Your task to perform on an android device: Open Reddit.com Image 0: 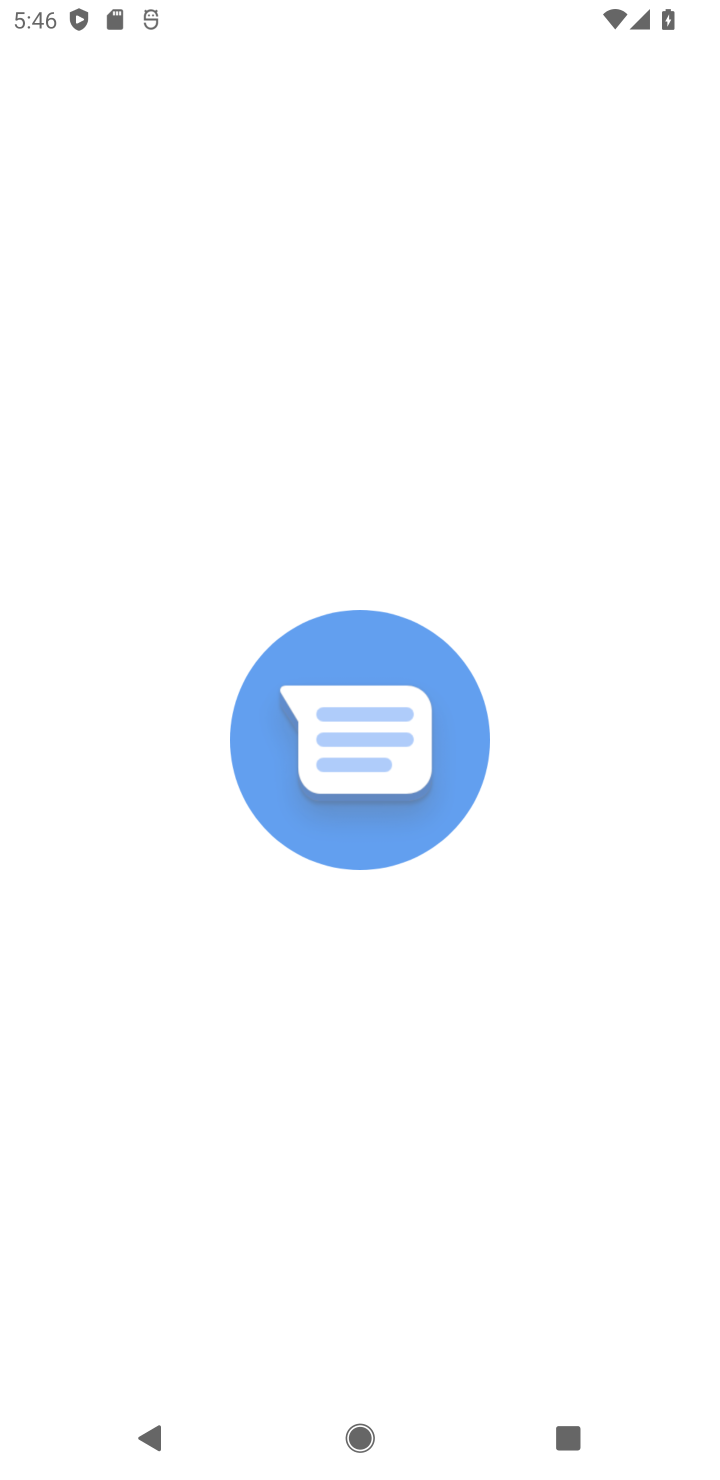
Step 0: press home button
Your task to perform on an android device: Open Reddit.com Image 1: 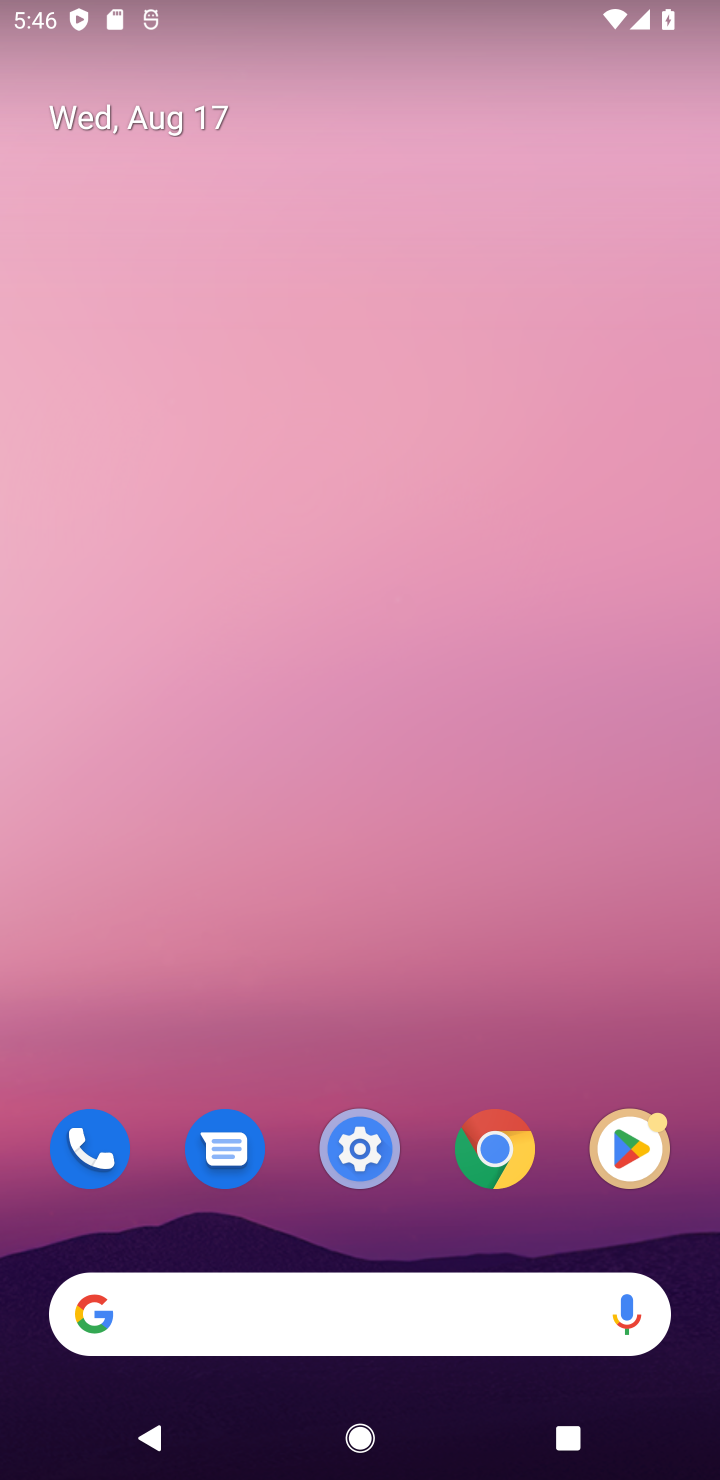
Step 1: click (501, 1155)
Your task to perform on an android device: Open Reddit.com Image 2: 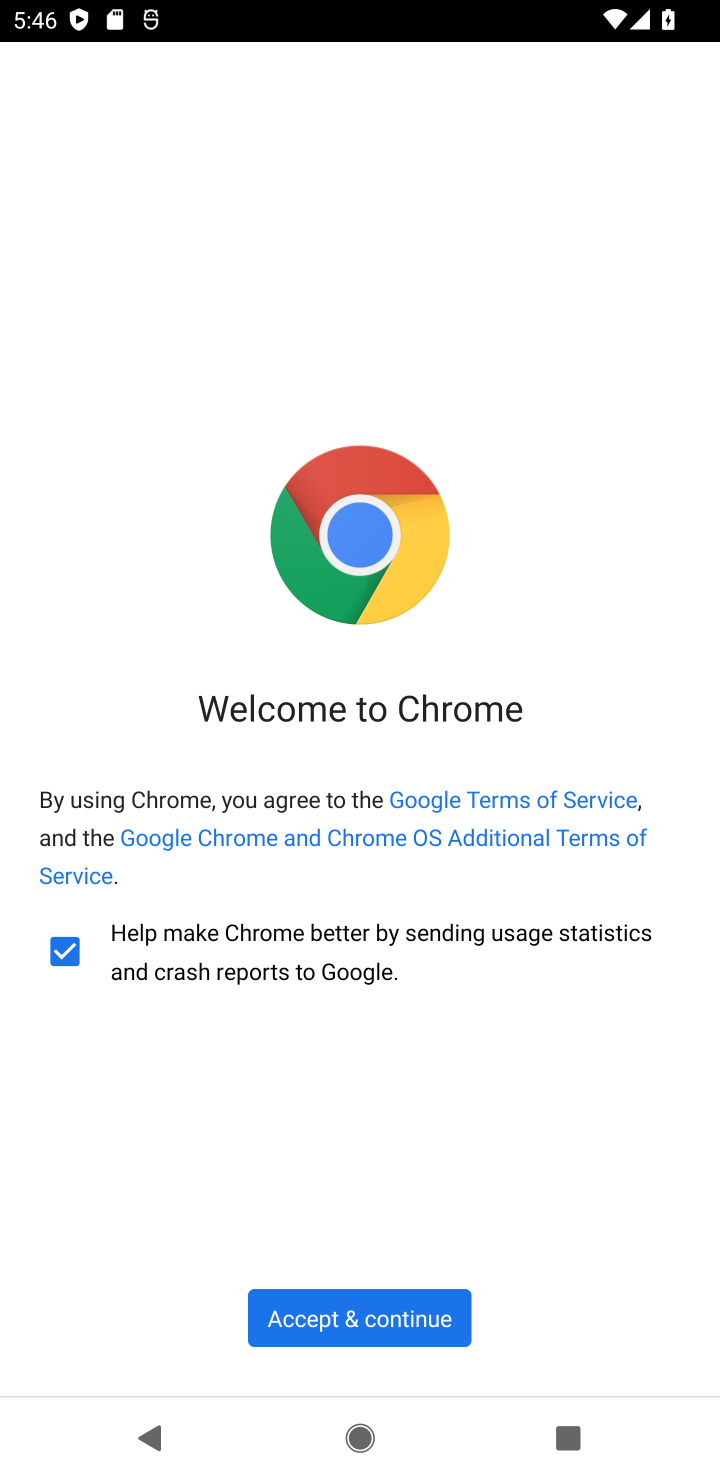
Step 2: click (414, 1321)
Your task to perform on an android device: Open Reddit.com Image 3: 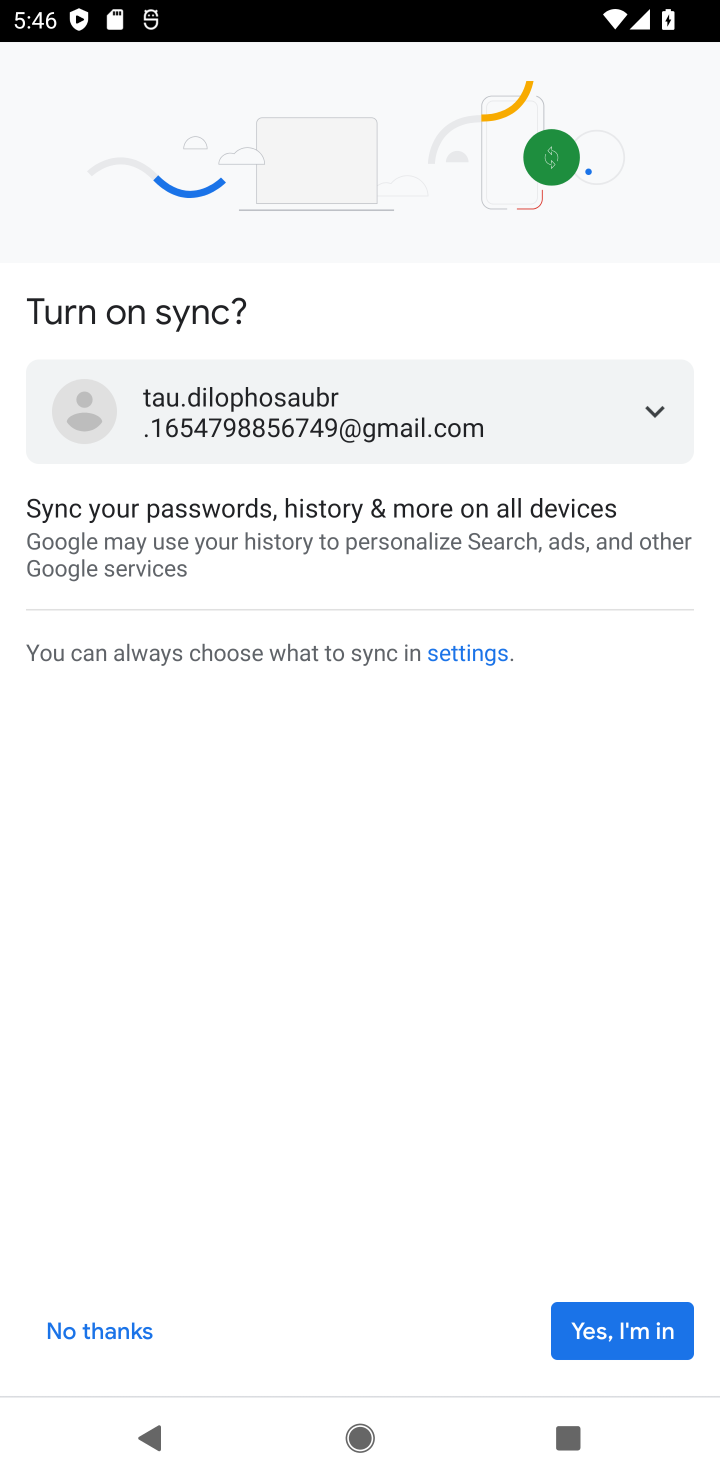
Step 3: click (641, 1355)
Your task to perform on an android device: Open Reddit.com Image 4: 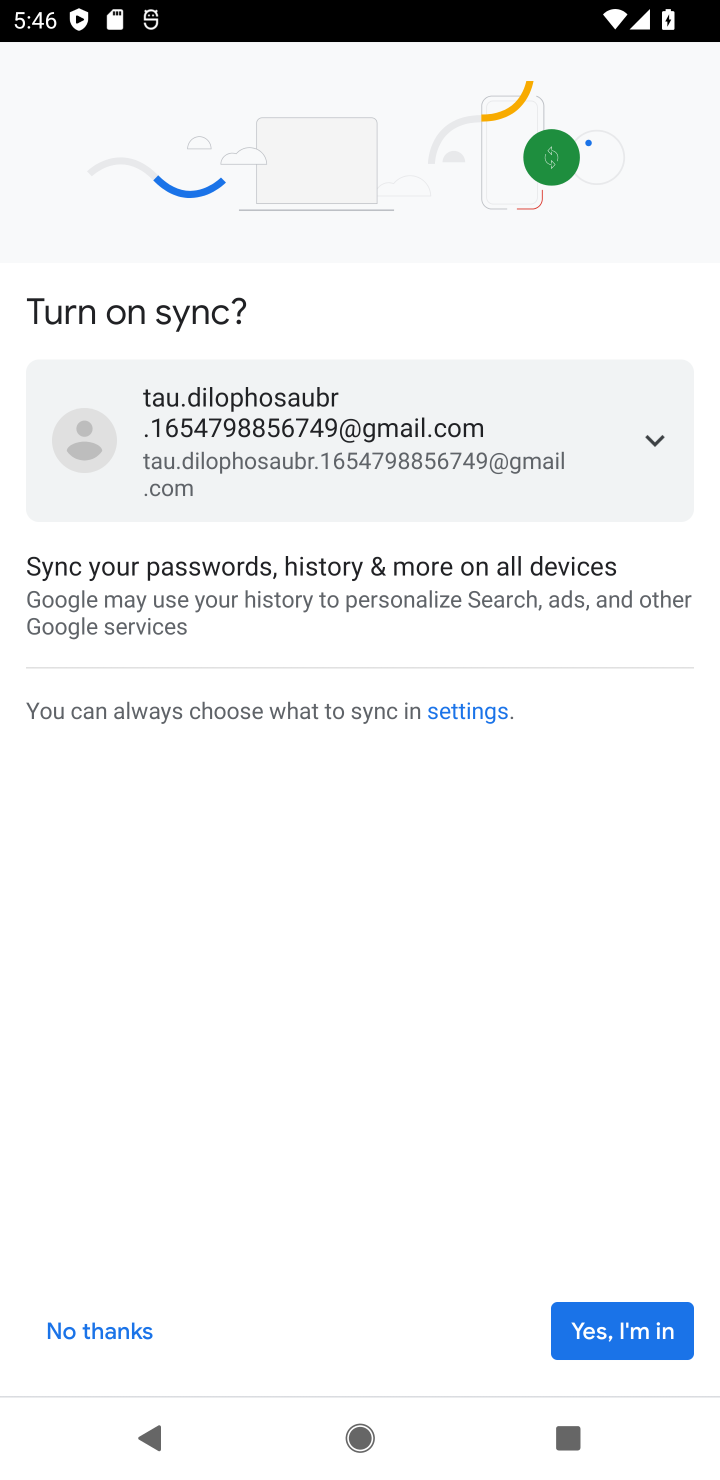
Step 4: click (593, 1344)
Your task to perform on an android device: Open Reddit.com Image 5: 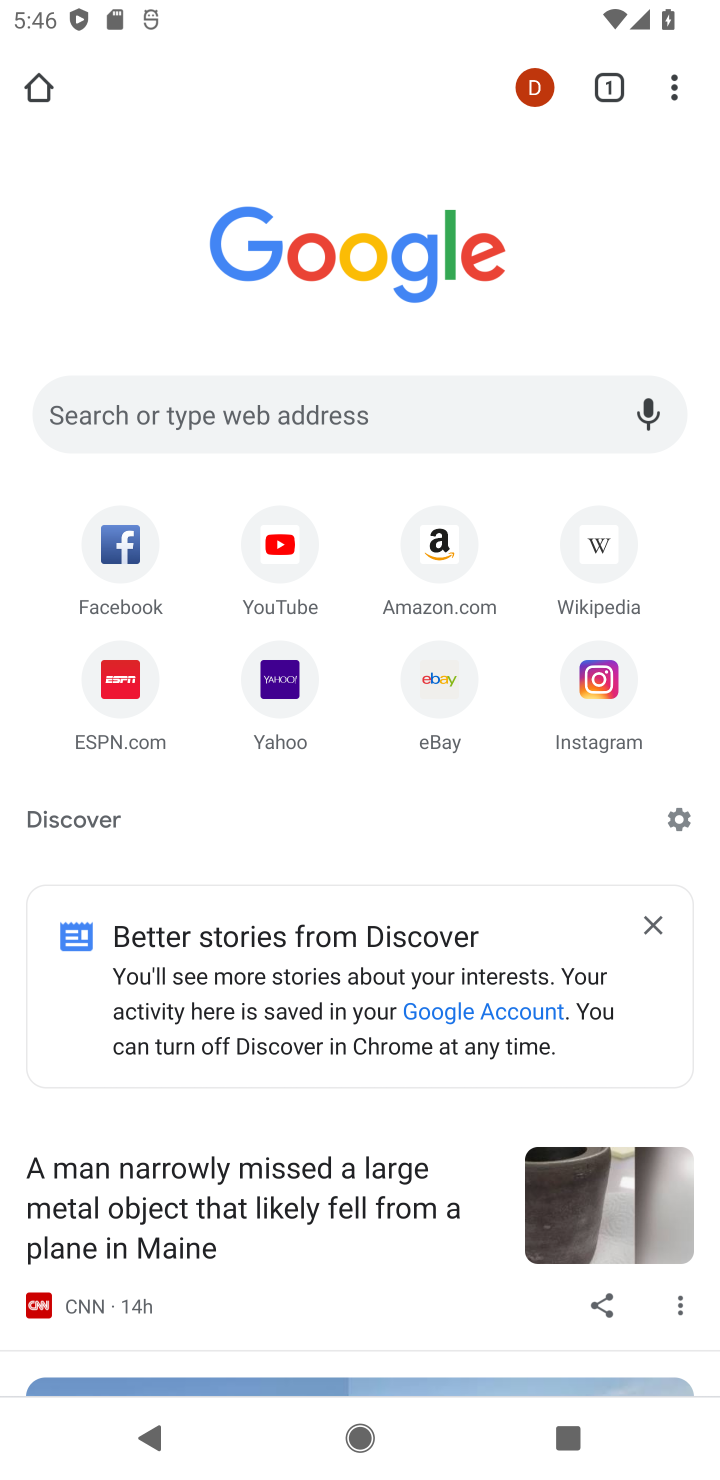
Step 5: click (301, 401)
Your task to perform on an android device: Open Reddit.com Image 6: 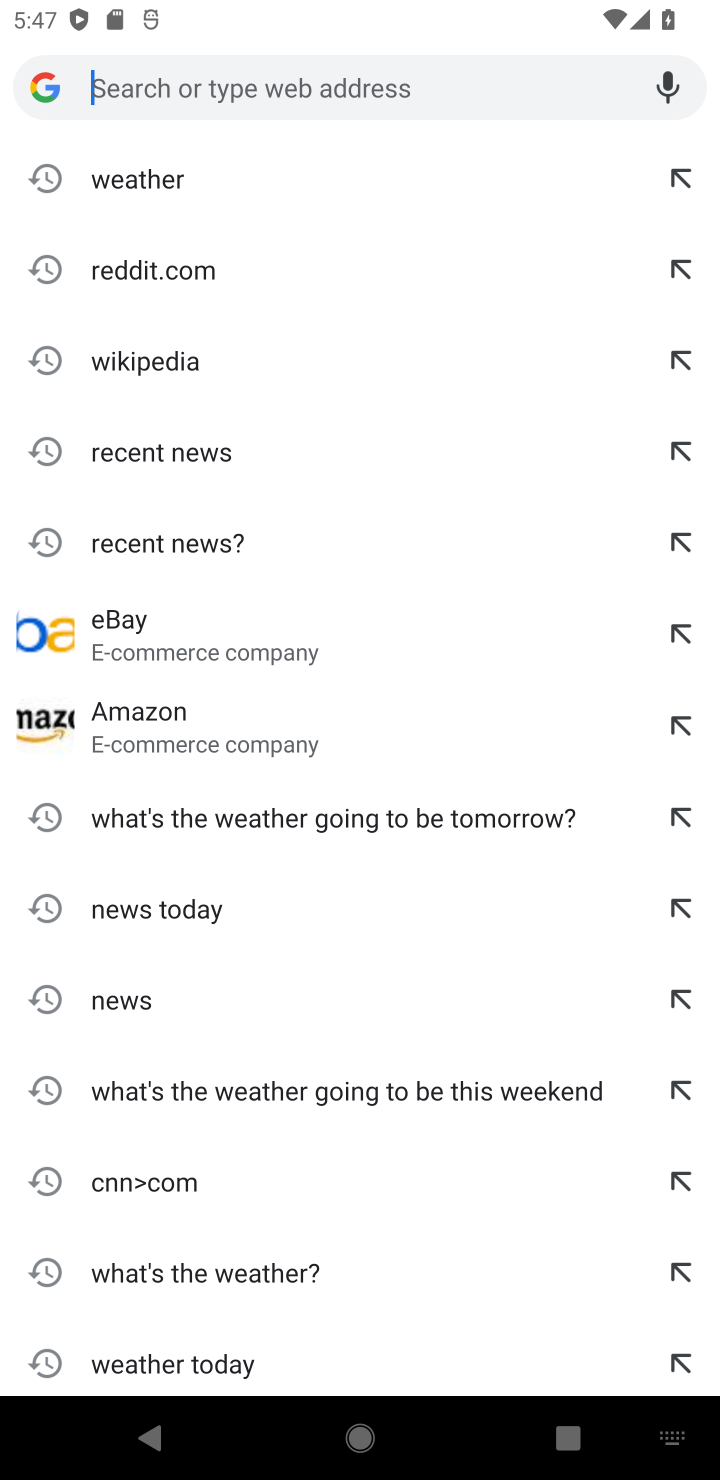
Step 6: type "reddit.com"
Your task to perform on an android device: Open Reddit.com Image 7: 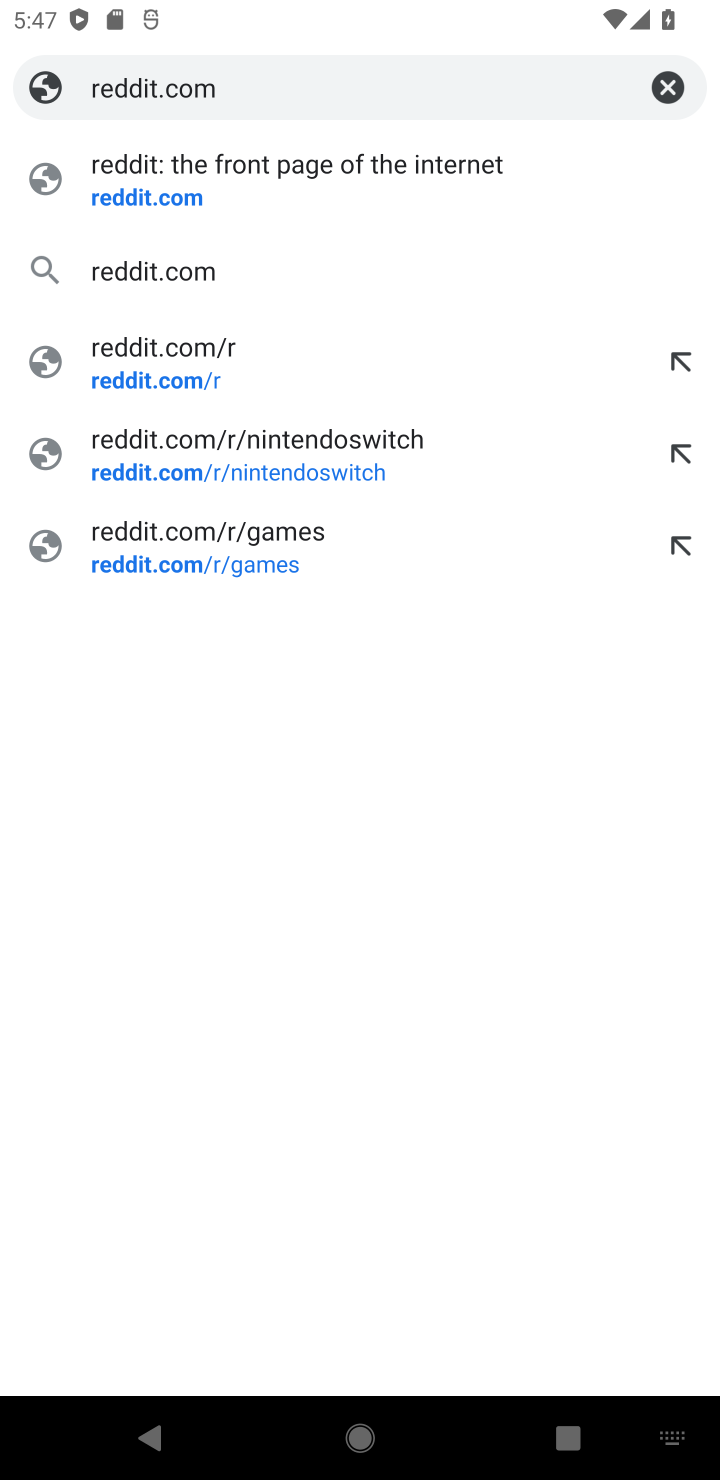
Step 7: click (115, 198)
Your task to perform on an android device: Open Reddit.com Image 8: 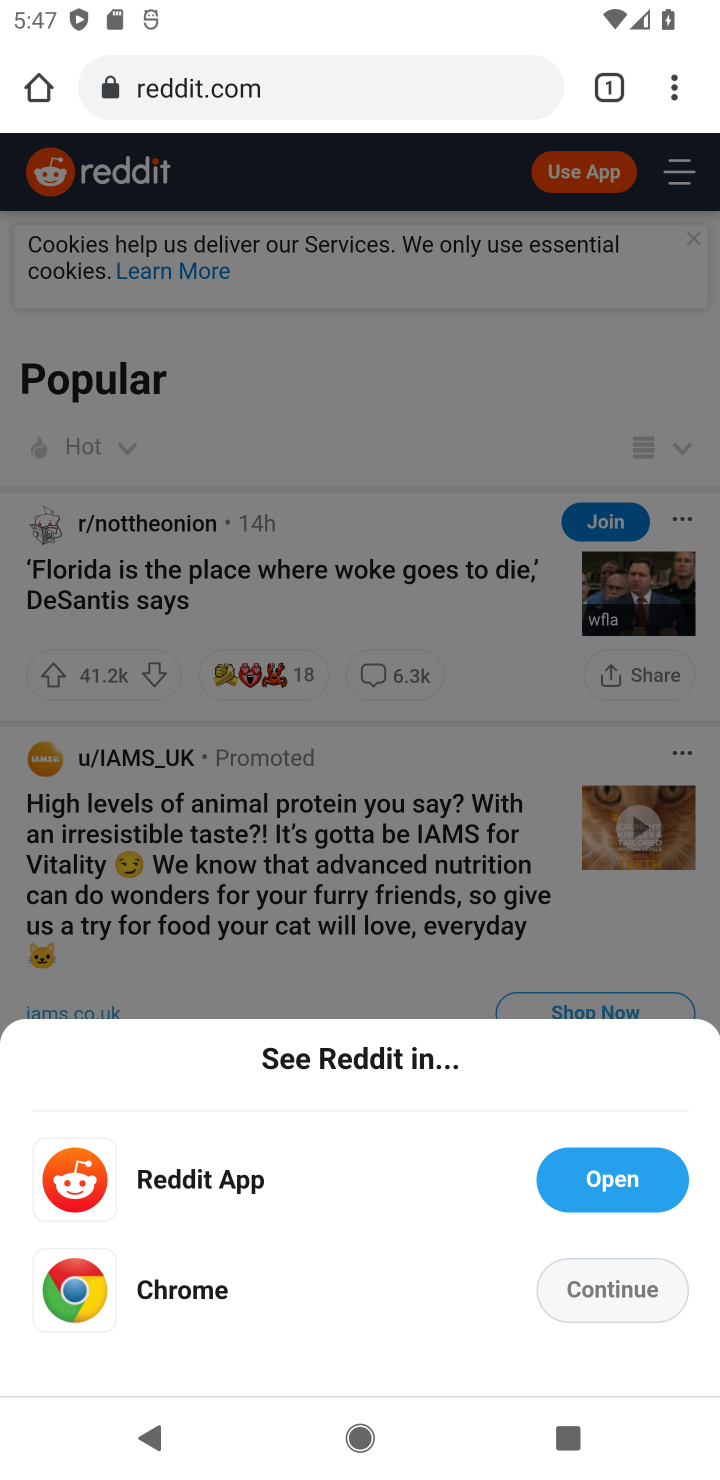
Step 8: click (615, 1291)
Your task to perform on an android device: Open Reddit.com Image 9: 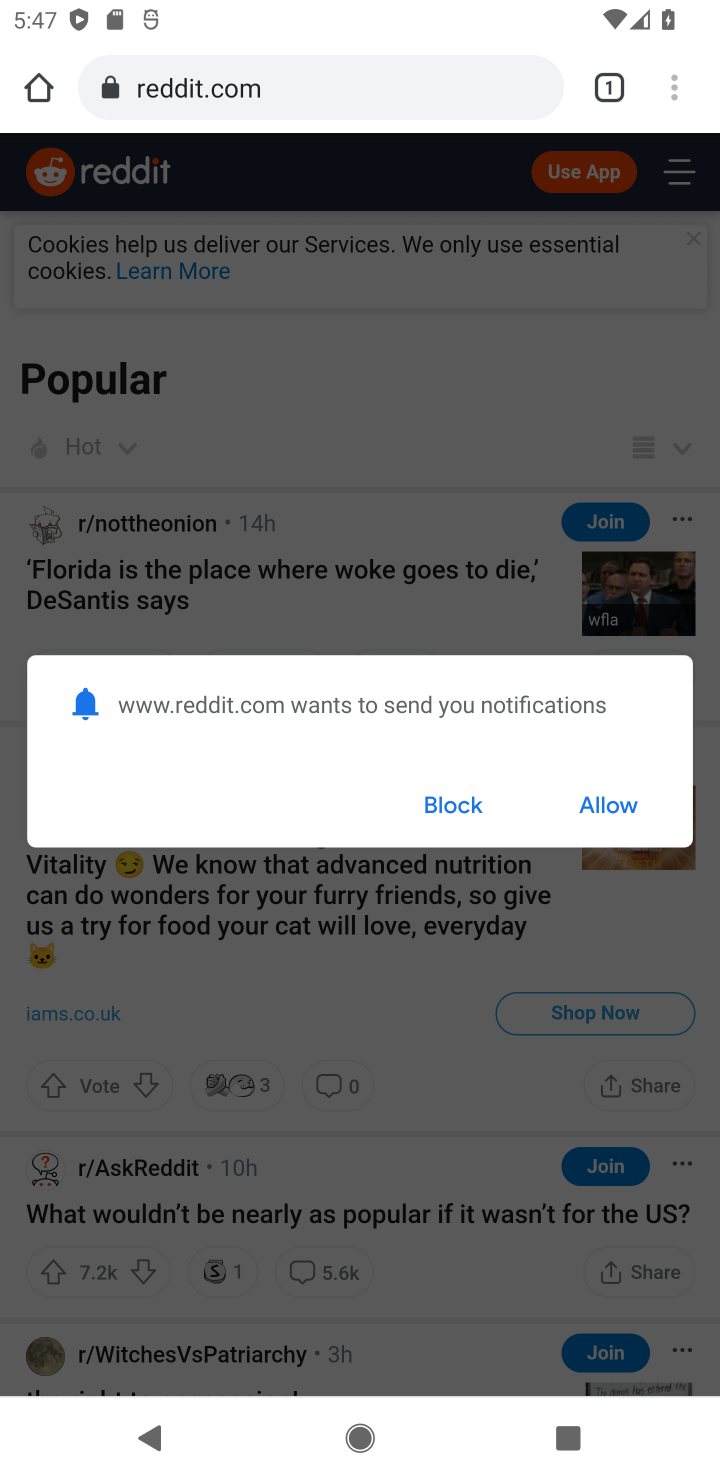
Step 9: click (606, 806)
Your task to perform on an android device: Open Reddit.com Image 10: 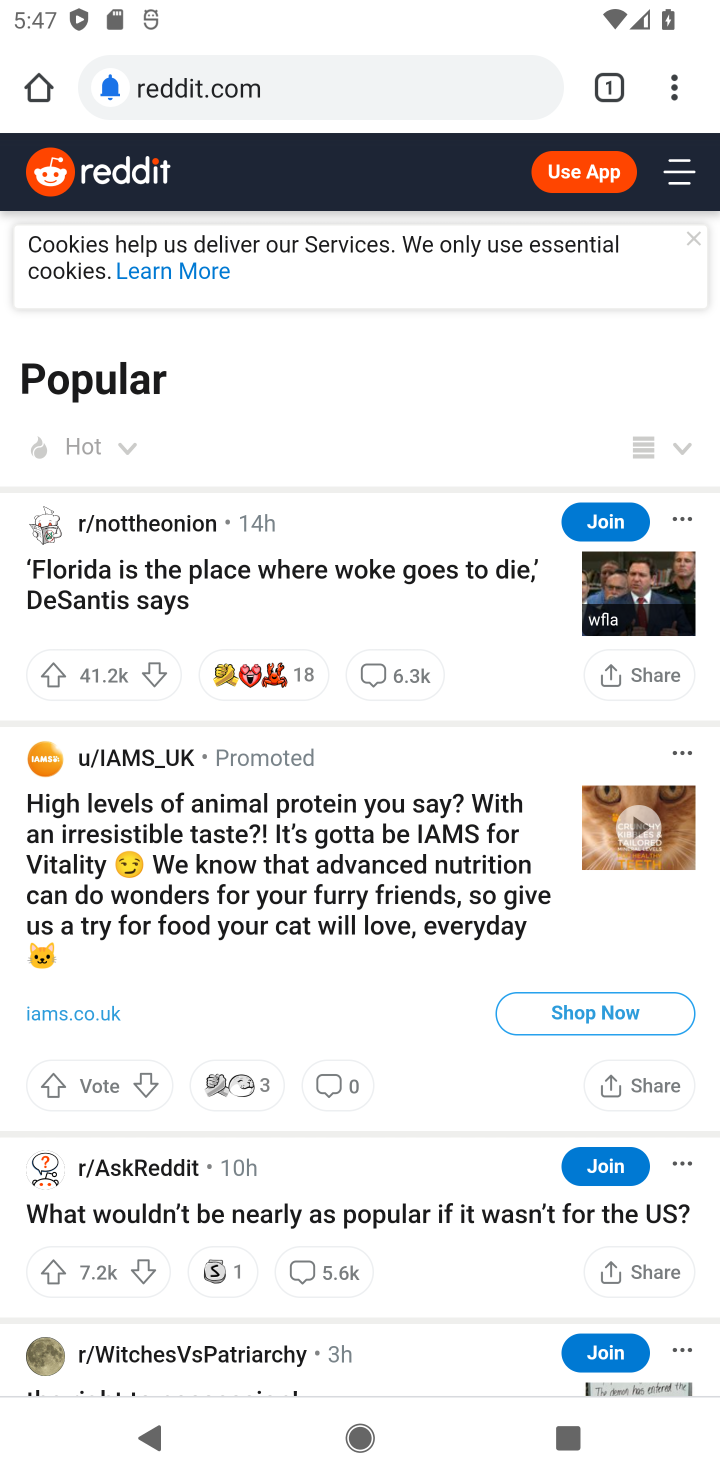
Step 10: task complete